Your task to perform on an android device: stop showing notifications on the lock screen Image 0: 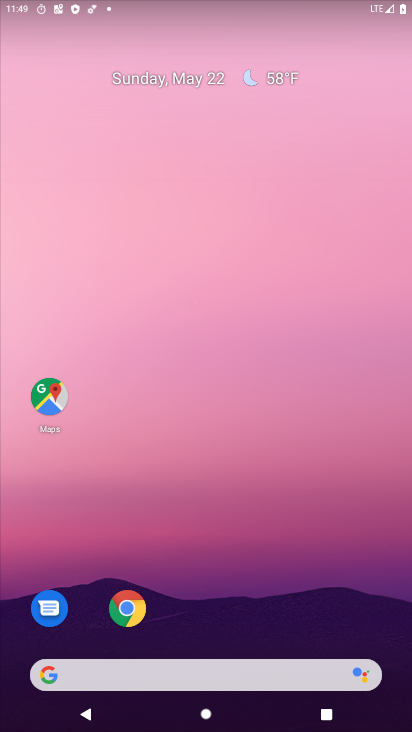
Step 0: drag from (271, 603) to (187, 135)
Your task to perform on an android device: stop showing notifications on the lock screen Image 1: 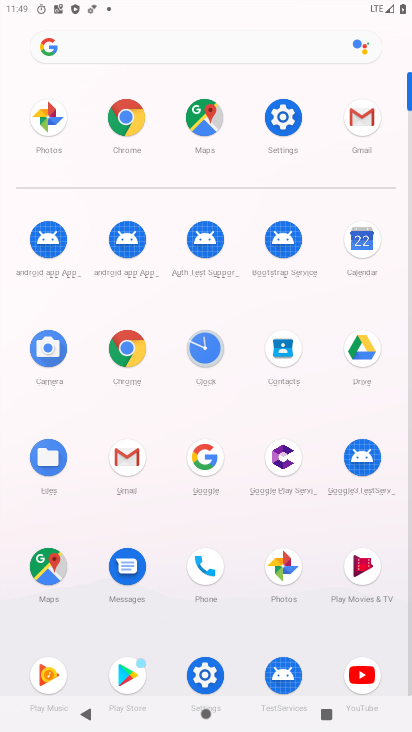
Step 1: click (286, 119)
Your task to perform on an android device: stop showing notifications on the lock screen Image 2: 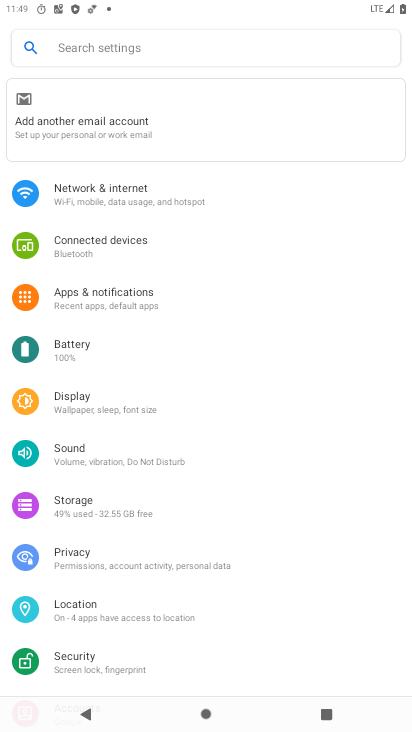
Step 2: click (208, 306)
Your task to perform on an android device: stop showing notifications on the lock screen Image 3: 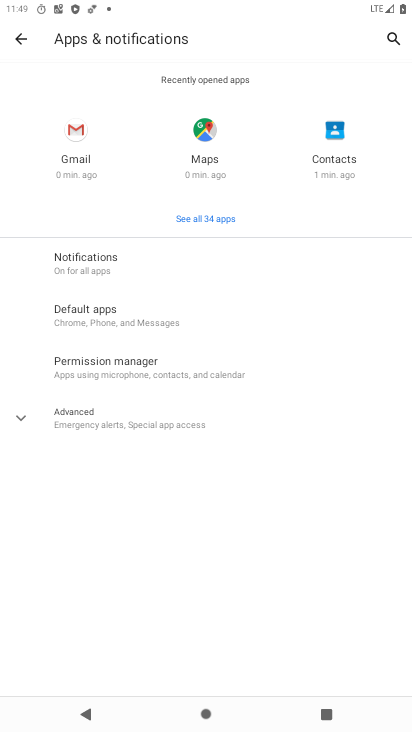
Step 3: click (187, 266)
Your task to perform on an android device: stop showing notifications on the lock screen Image 4: 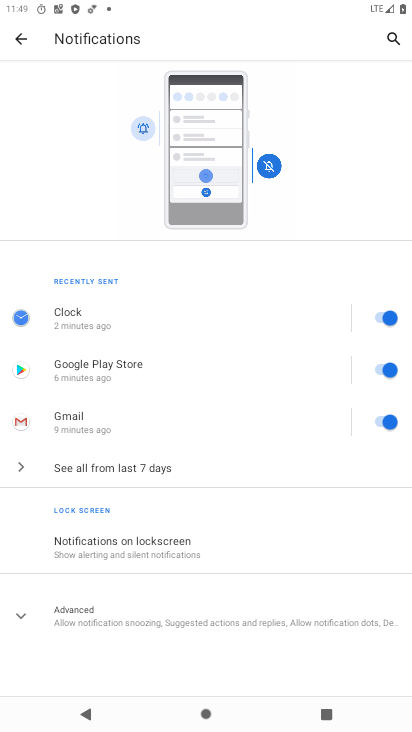
Step 4: click (194, 557)
Your task to perform on an android device: stop showing notifications on the lock screen Image 5: 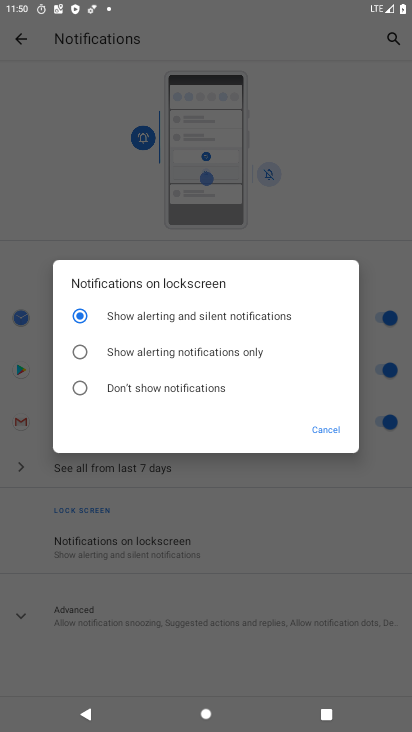
Step 5: click (188, 399)
Your task to perform on an android device: stop showing notifications on the lock screen Image 6: 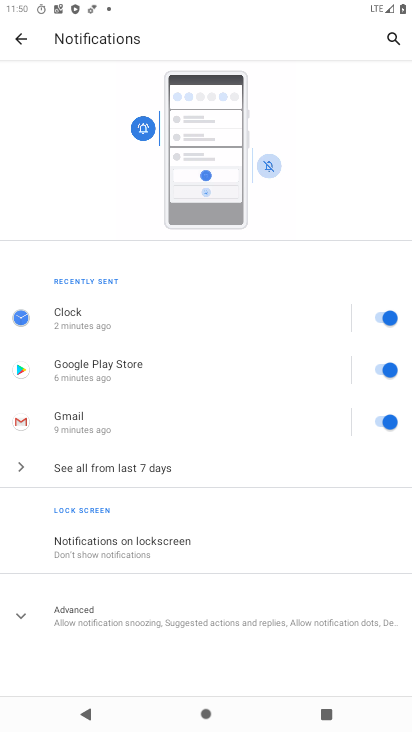
Step 6: task complete